Your task to perform on an android device: check storage Image 0: 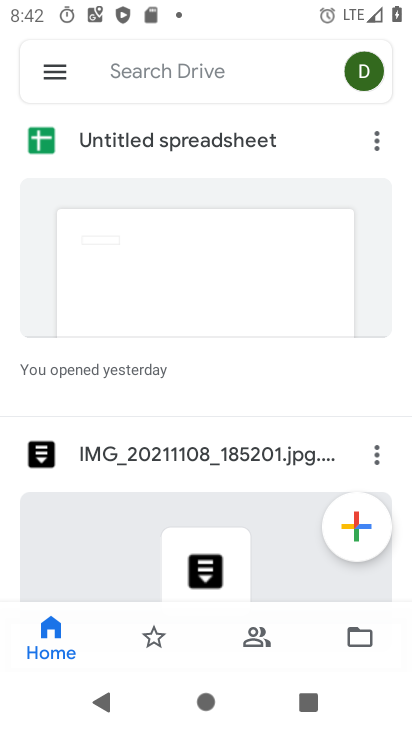
Step 0: press home button
Your task to perform on an android device: check storage Image 1: 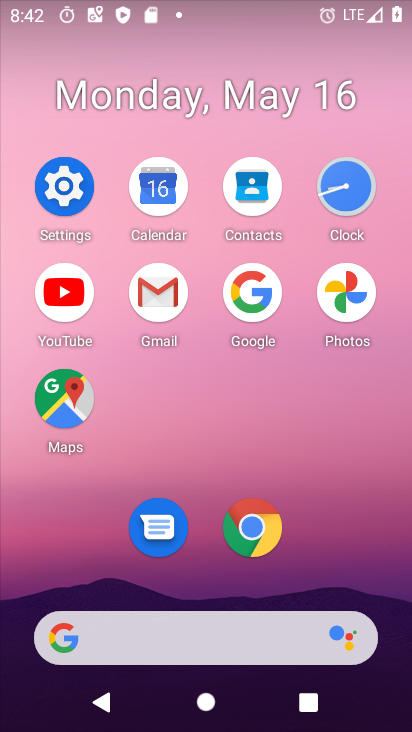
Step 1: click (48, 185)
Your task to perform on an android device: check storage Image 2: 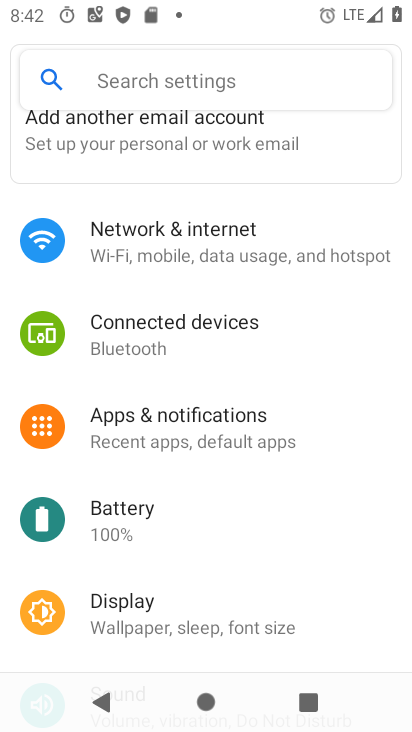
Step 2: drag from (244, 577) to (287, 259)
Your task to perform on an android device: check storage Image 3: 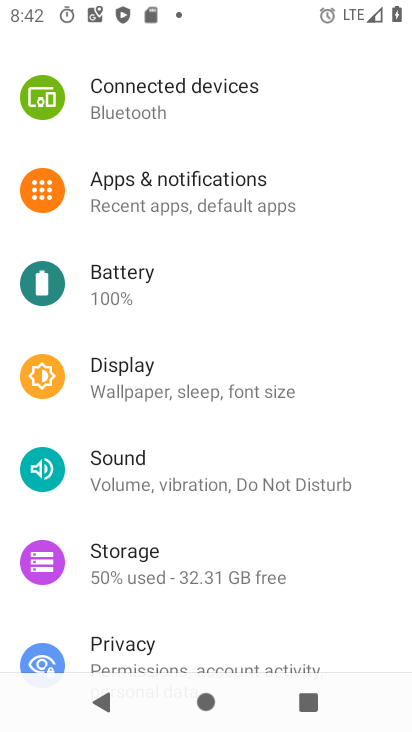
Step 3: click (199, 563)
Your task to perform on an android device: check storage Image 4: 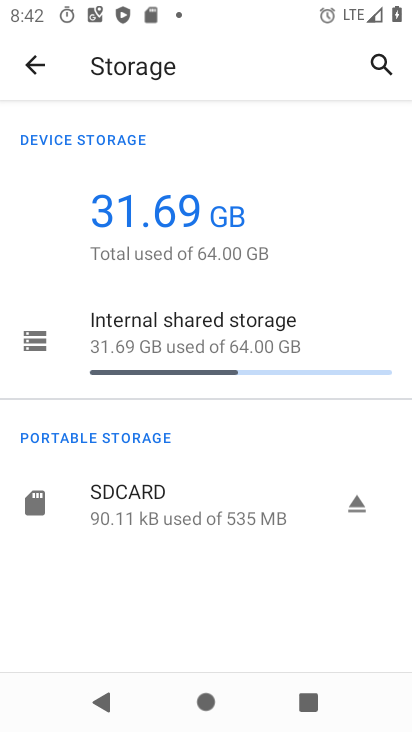
Step 4: task complete